Your task to perform on an android device: Play the last video I watched on Youtube Image 0: 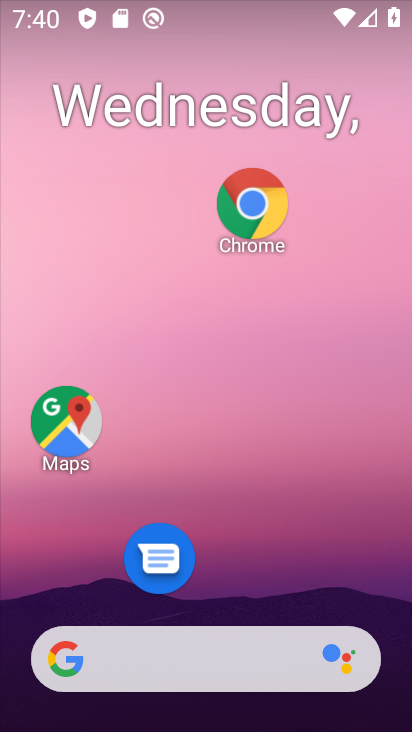
Step 0: press home button
Your task to perform on an android device: Play the last video I watched on Youtube Image 1: 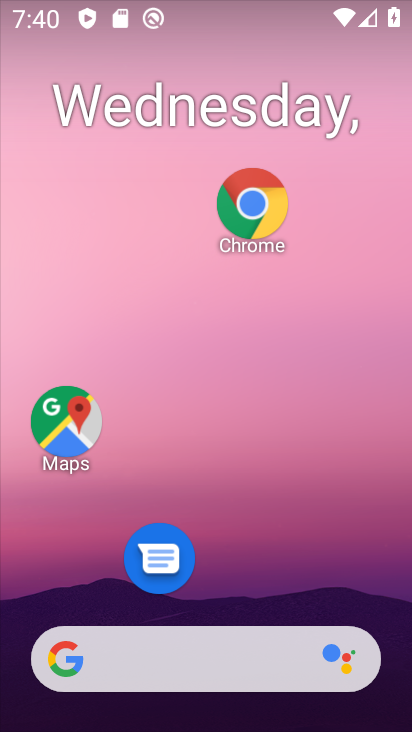
Step 1: drag from (242, 589) to (236, 92)
Your task to perform on an android device: Play the last video I watched on Youtube Image 2: 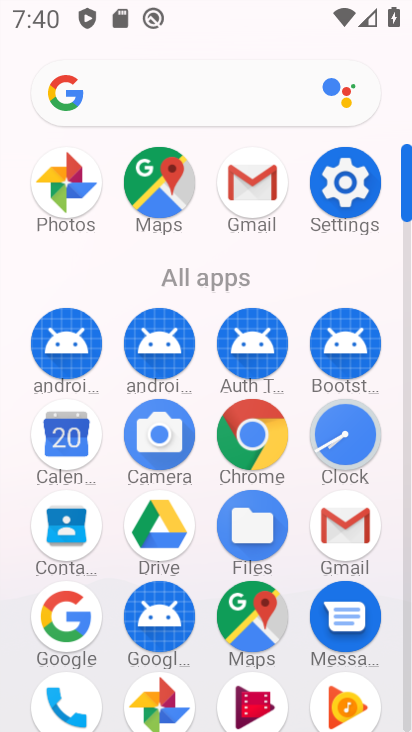
Step 2: drag from (201, 576) to (192, 178)
Your task to perform on an android device: Play the last video I watched on Youtube Image 3: 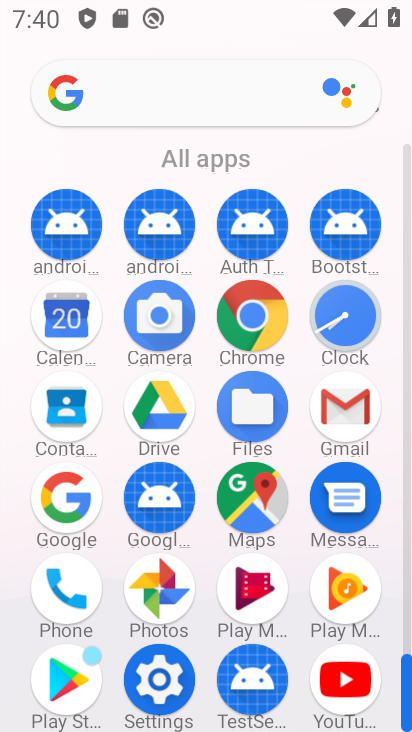
Step 3: click (343, 676)
Your task to perform on an android device: Play the last video I watched on Youtube Image 4: 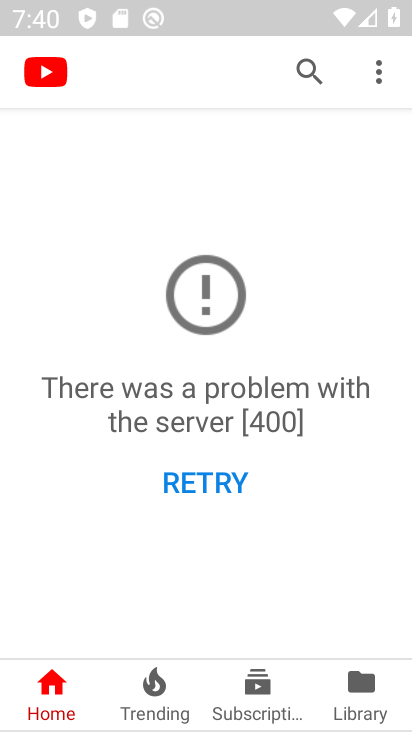
Step 4: click (200, 480)
Your task to perform on an android device: Play the last video I watched on Youtube Image 5: 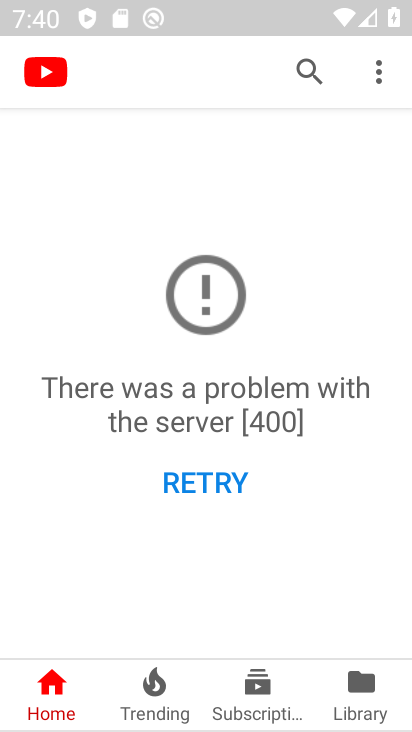
Step 5: click (239, 482)
Your task to perform on an android device: Play the last video I watched on Youtube Image 6: 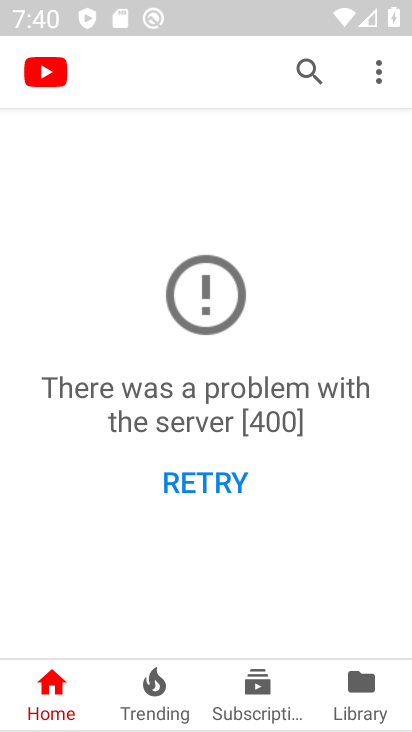
Step 6: task complete